Your task to perform on an android device: all mails in gmail Image 0: 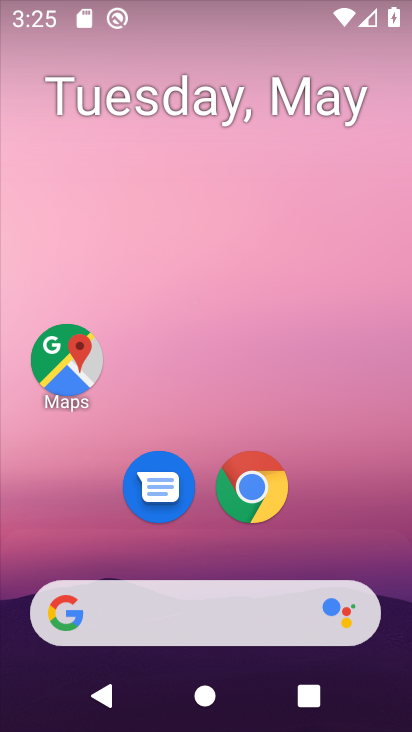
Step 0: drag from (234, 514) to (300, 131)
Your task to perform on an android device: all mails in gmail Image 1: 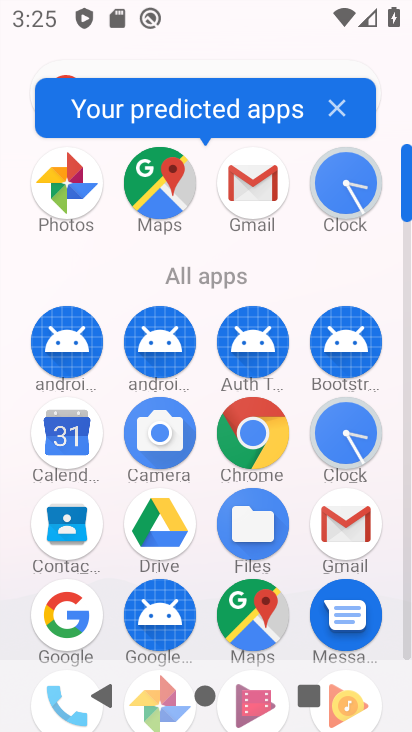
Step 1: click (361, 542)
Your task to perform on an android device: all mails in gmail Image 2: 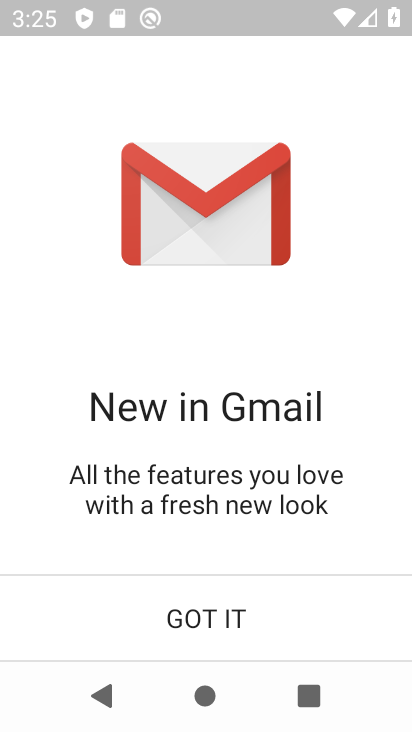
Step 2: click (201, 627)
Your task to perform on an android device: all mails in gmail Image 3: 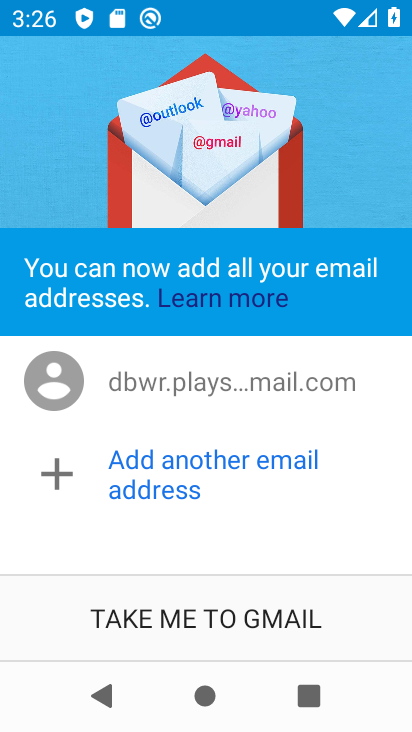
Step 3: click (190, 603)
Your task to perform on an android device: all mails in gmail Image 4: 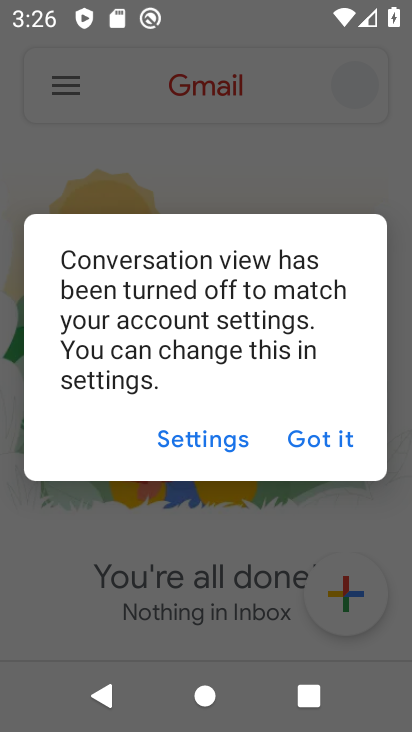
Step 4: click (299, 435)
Your task to perform on an android device: all mails in gmail Image 5: 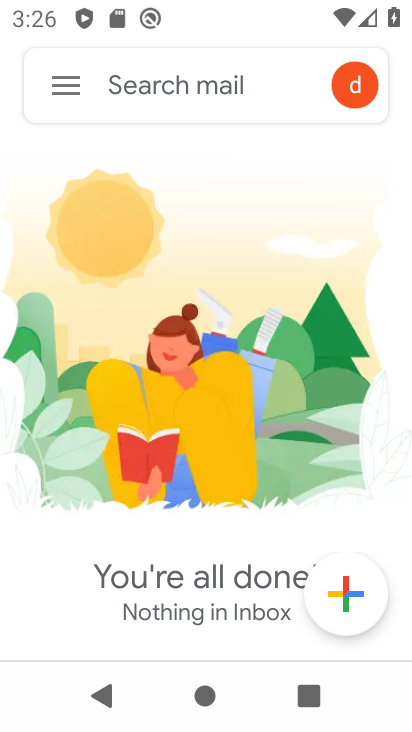
Step 5: click (57, 68)
Your task to perform on an android device: all mails in gmail Image 6: 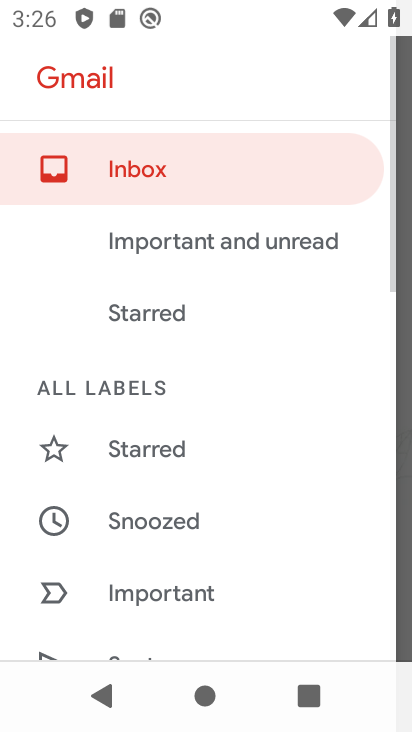
Step 6: drag from (168, 564) to (241, 233)
Your task to perform on an android device: all mails in gmail Image 7: 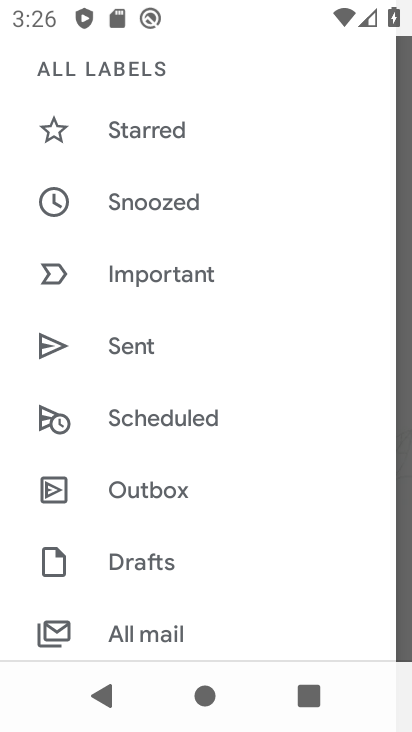
Step 7: click (169, 623)
Your task to perform on an android device: all mails in gmail Image 8: 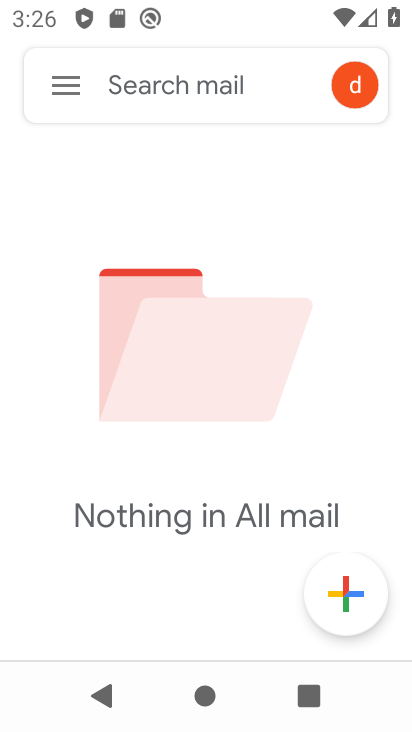
Step 8: task complete